Your task to perform on an android device: see sites visited before in the chrome app Image 0: 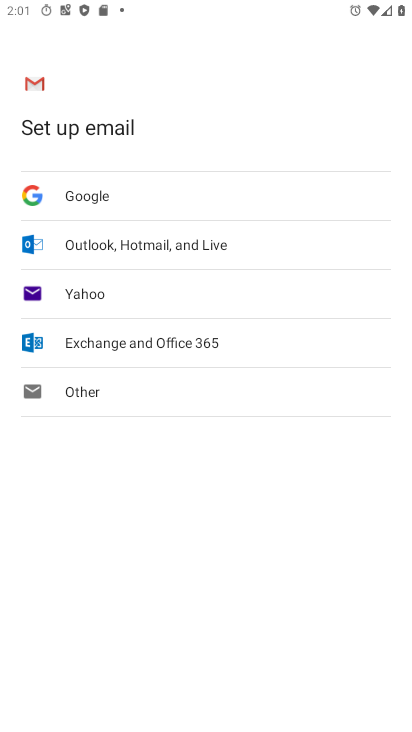
Step 0: press home button
Your task to perform on an android device: see sites visited before in the chrome app Image 1: 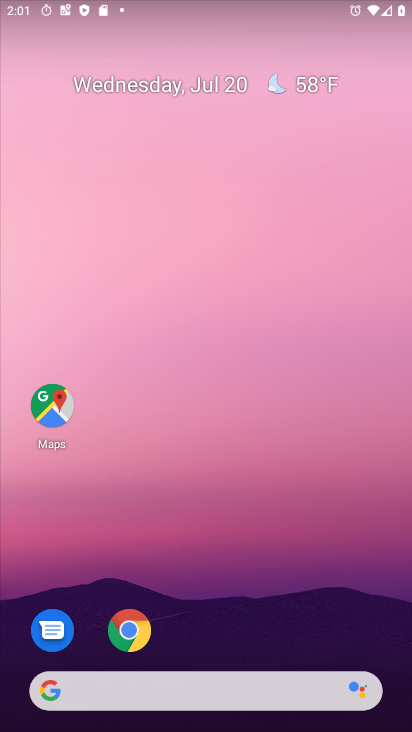
Step 1: click (124, 634)
Your task to perform on an android device: see sites visited before in the chrome app Image 2: 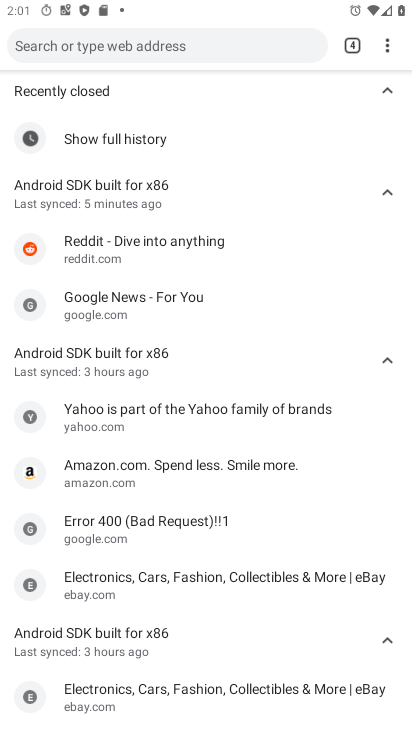
Step 2: task complete